Your task to perform on an android device: turn on data saver in the chrome app Image 0: 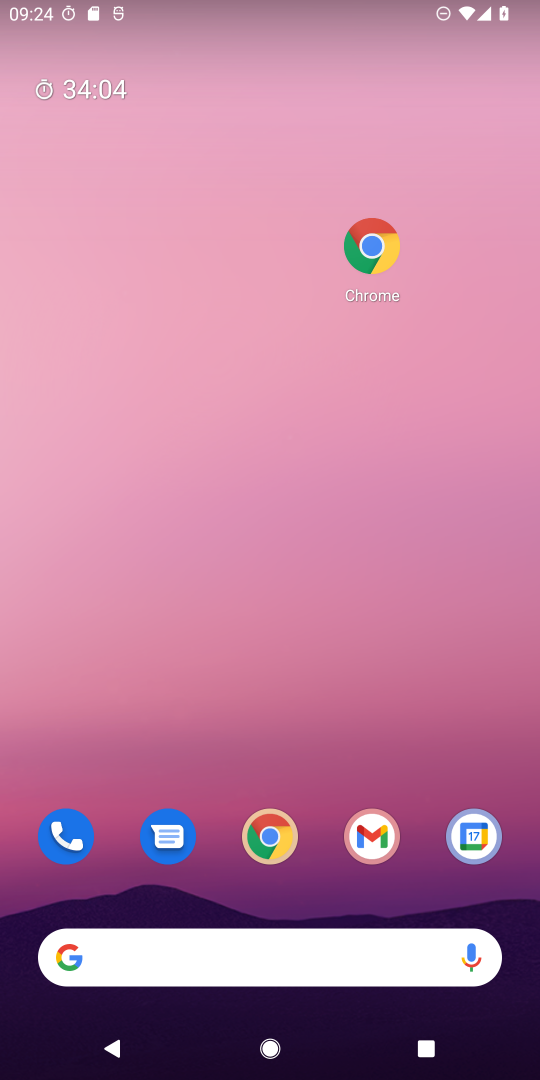
Step 0: drag from (280, 861) to (273, 227)
Your task to perform on an android device: turn on data saver in the chrome app Image 1: 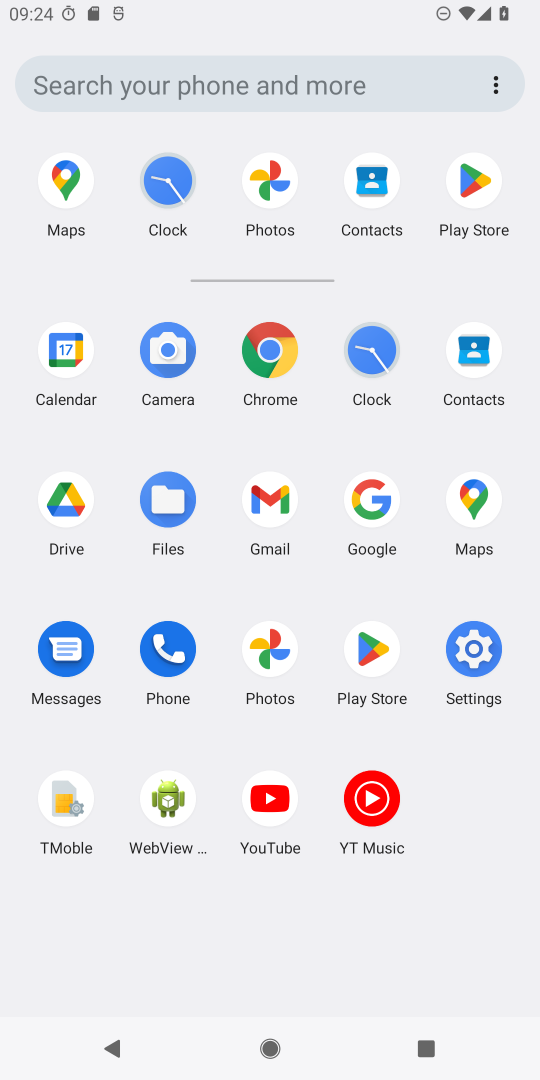
Step 1: click (281, 347)
Your task to perform on an android device: turn on data saver in the chrome app Image 2: 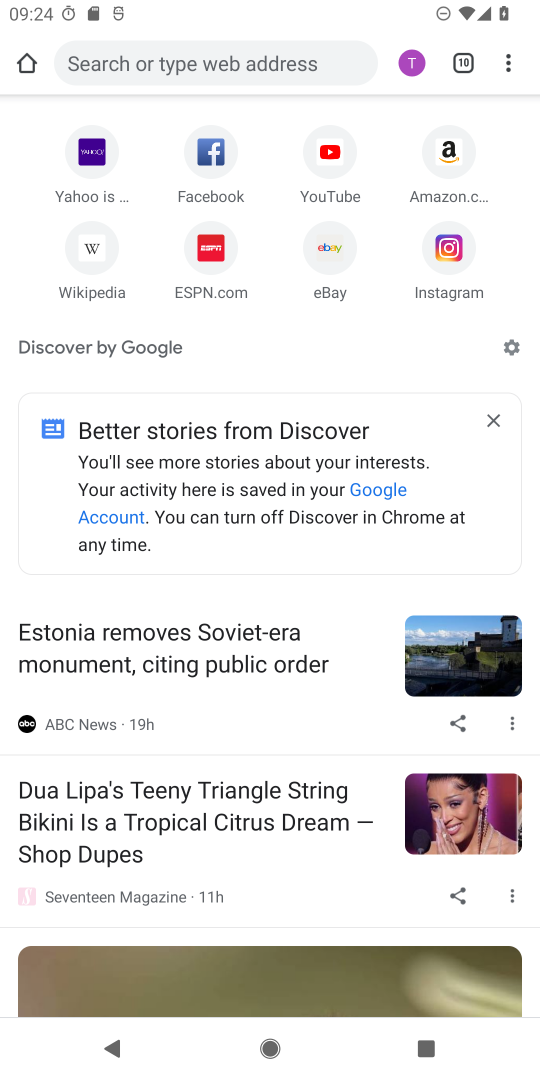
Step 2: click (521, 66)
Your task to perform on an android device: turn on data saver in the chrome app Image 3: 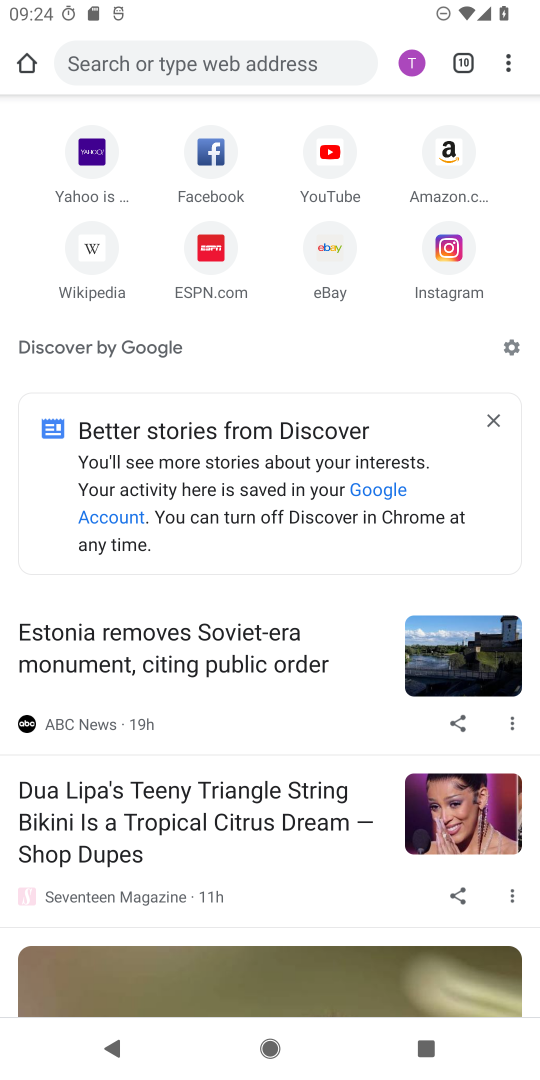
Step 3: click (505, 58)
Your task to perform on an android device: turn on data saver in the chrome app Image 4: 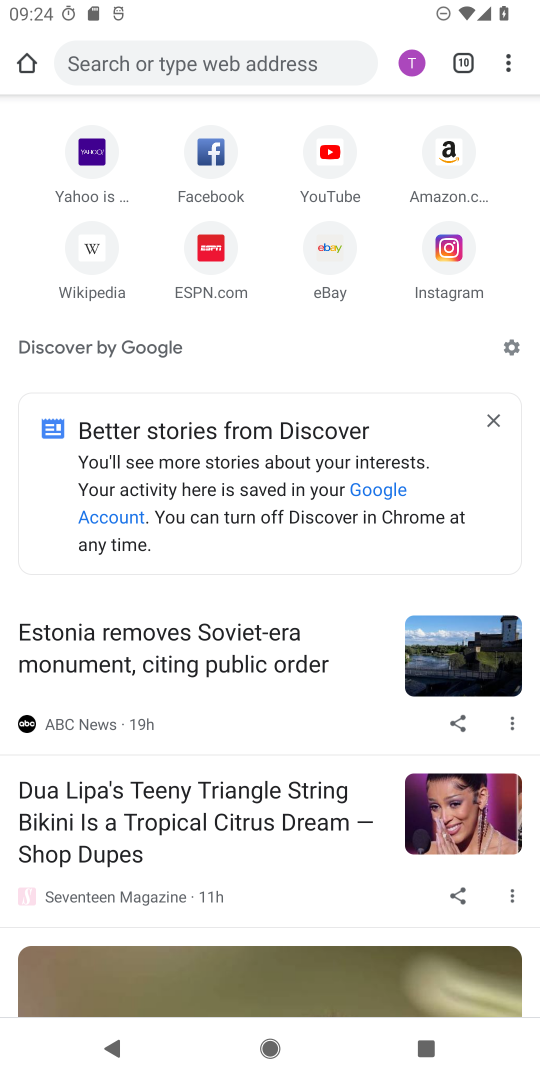
Step 4: click (496, 69)
Your task to perform on an android device: turn on data saver in the chrome app Image 5: 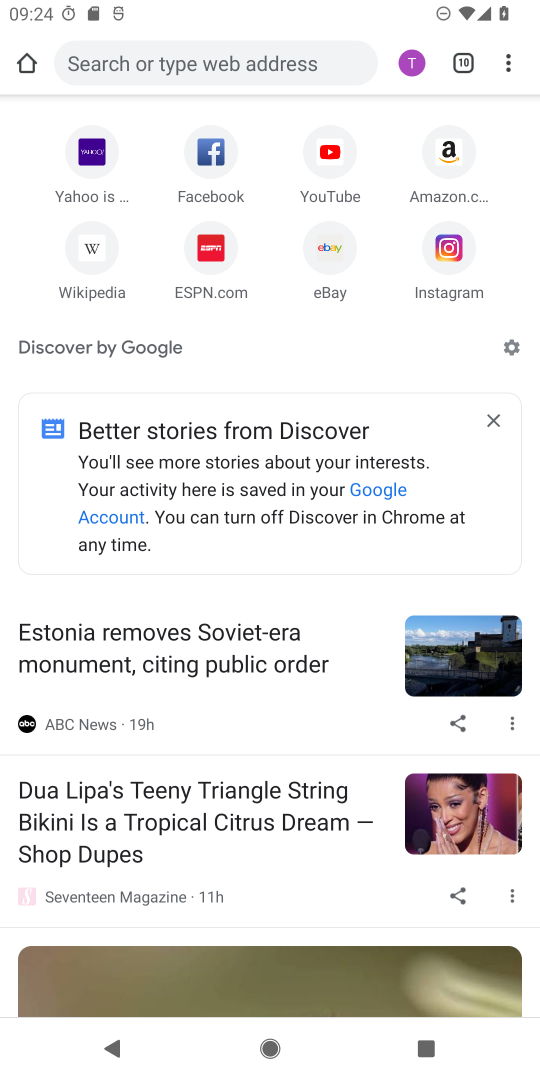
Step 5: click (495, 62)
Your task to perform on an android device: turn on data saver in the chrome app Image 6: 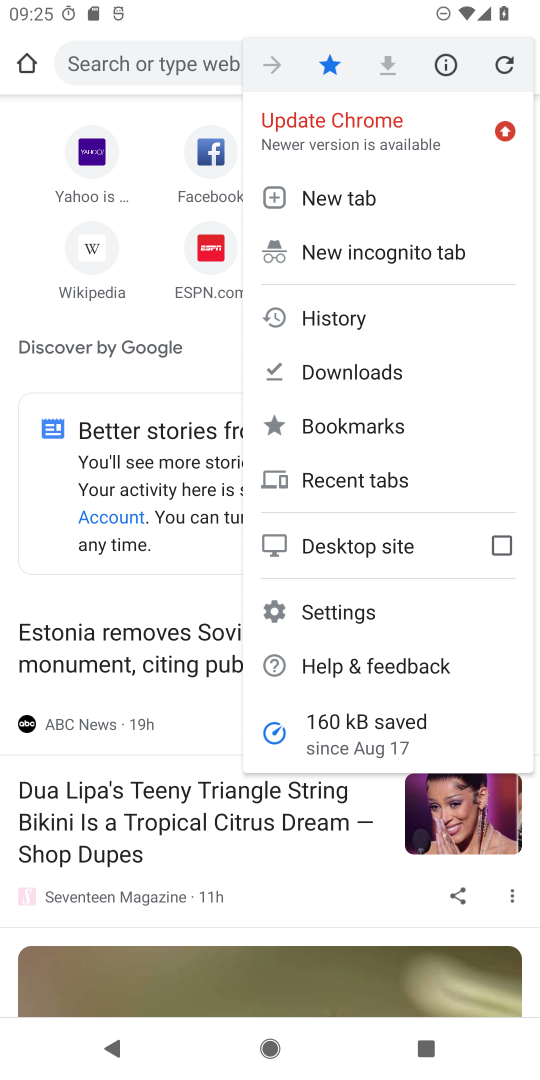
Step 6: click (361, 616)
Your task to perform on an android device: turn on data saver in the chrome app Image 7: 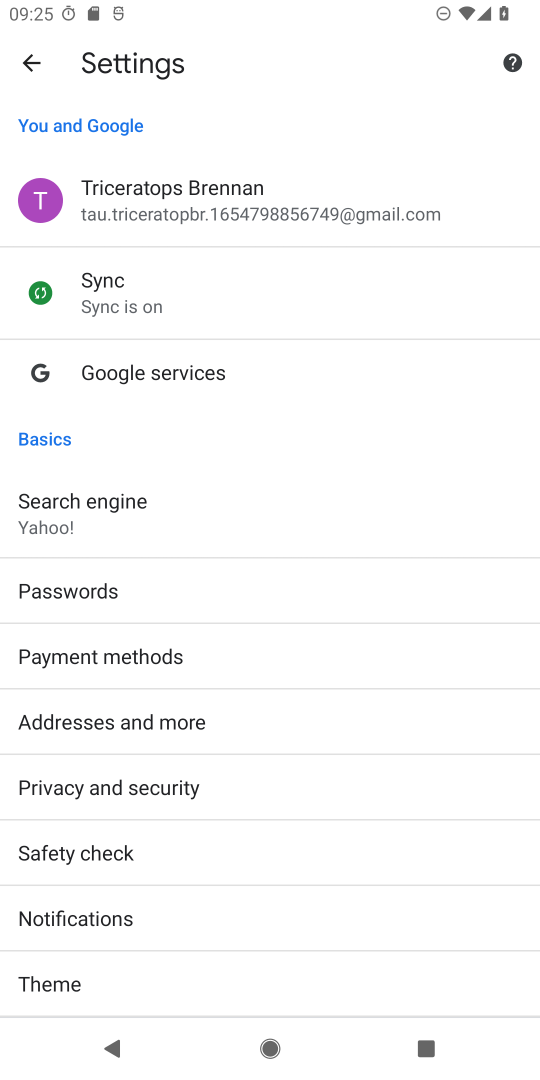
Step 7: drag from (267, 908) to (281, 470)
Your task to perform on an android device: turn on data saver in the chrome app Image 8: 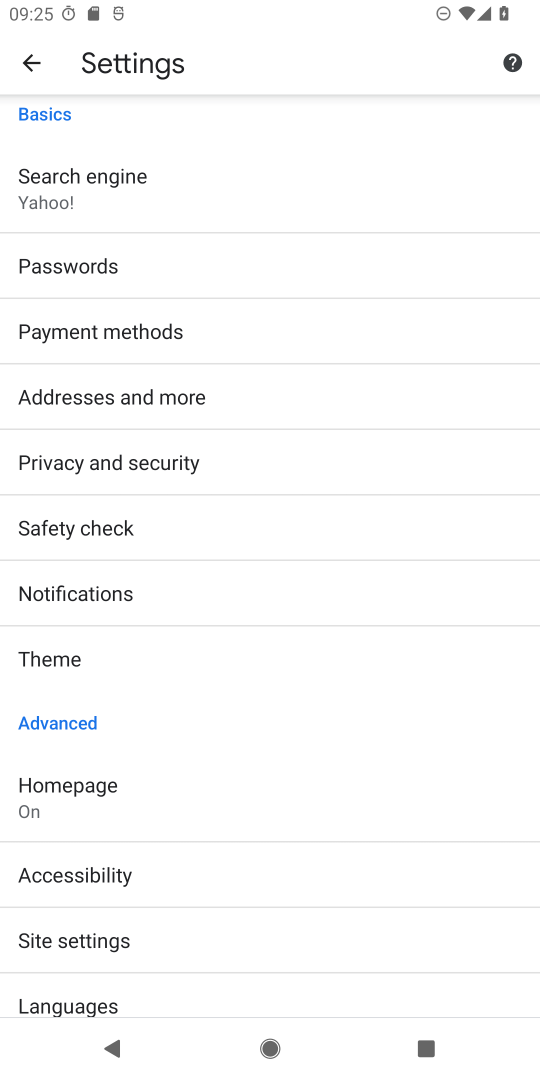
Step 8: drag from (264, 981) to (281, 570)
Your task to perform on an android device: turn on data saver in the chrome app Image 9: 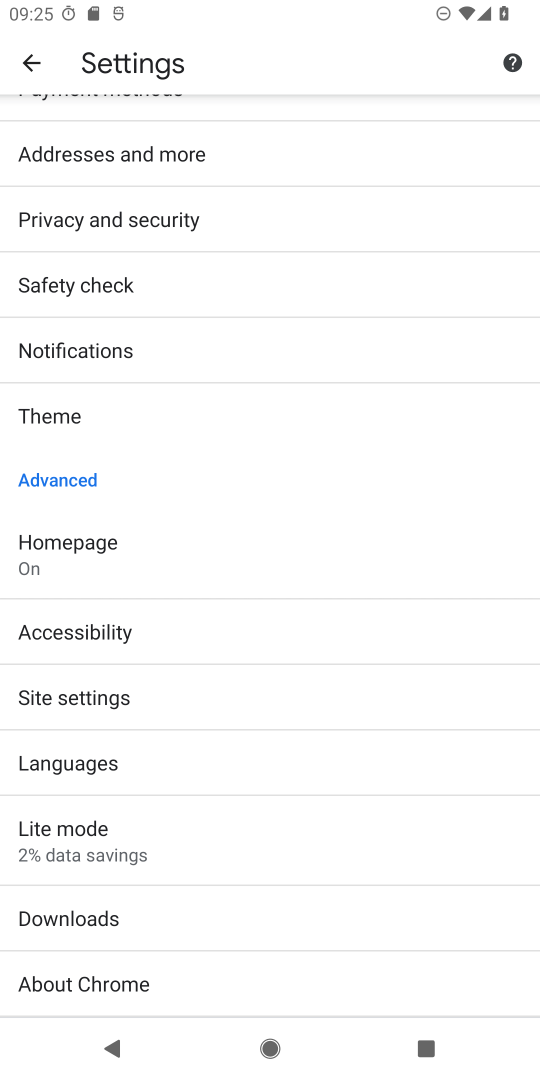
Step 9: click (154, 839)
Your task to perform on an android device: turn on data saver in the chrome app Image 10: 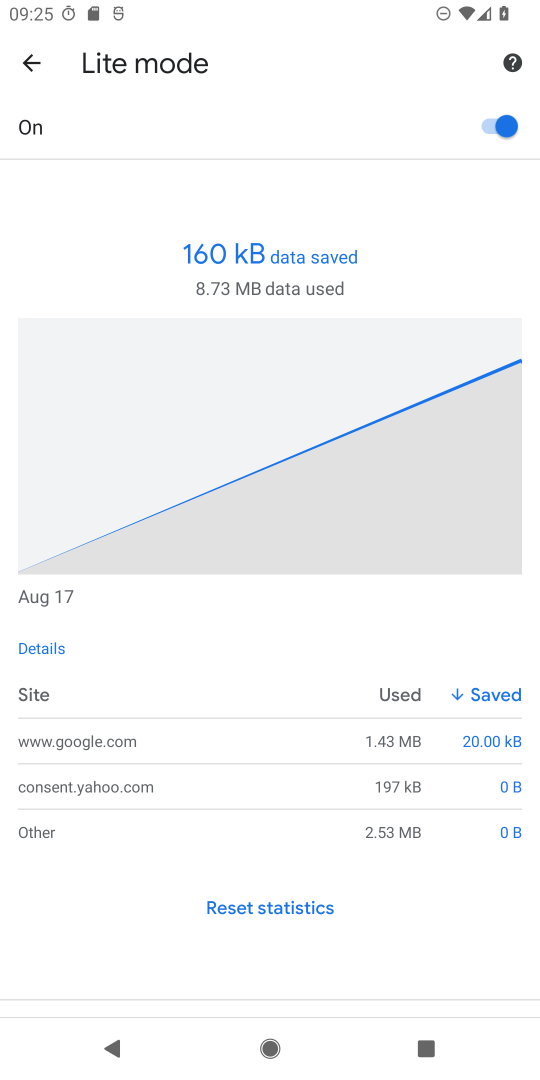
Step 10: task complete